Your task to perform on an android device: change the clock style Image 0: 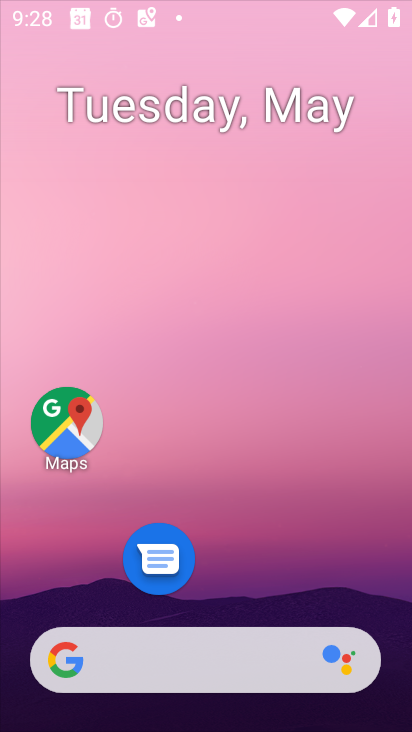
Step 0: drag from (281, 295) to (197, 0)
Your task to perform on an android device: change the clock style Image 1: 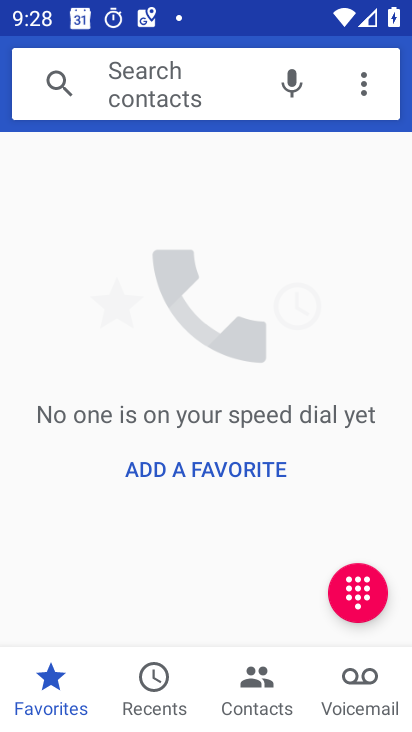
Step 1: press back button
Your task to perform on an android device: change the clock style Image 2: 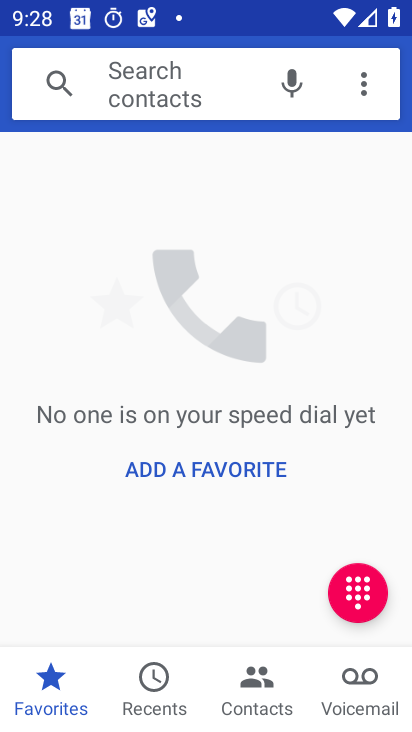
Step 2: press back button
Your task to perform on an android device: change the clock style Image 3: 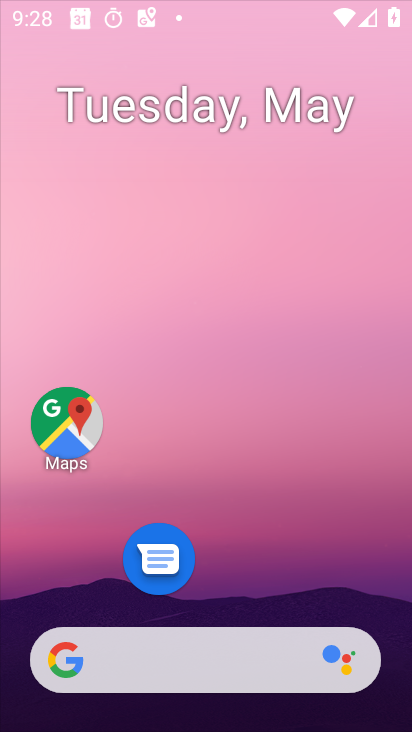
Step 3: press back button
Your task to perform on an android device: change the clock style Image 4: 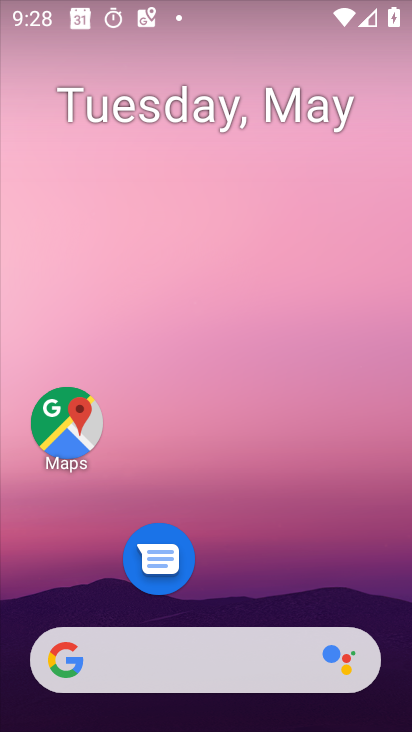
Step 4: drag from (304, 534) to (118, 111)
Your task to perform on an android device: change the clock style Image 5: 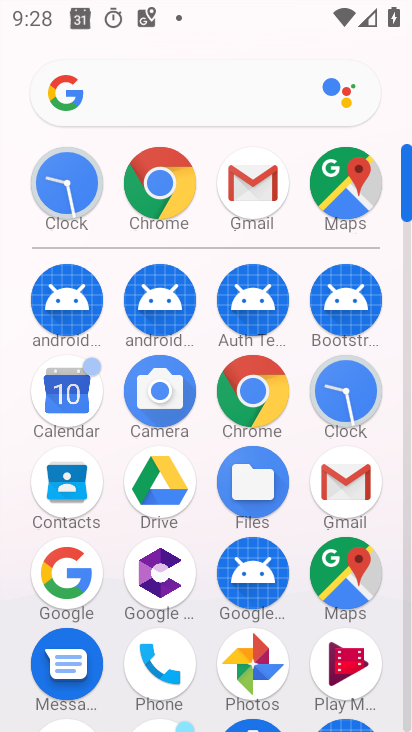
Step 5: click (350, 379)
Your task to perform on an android device: change the clock style Image 6: 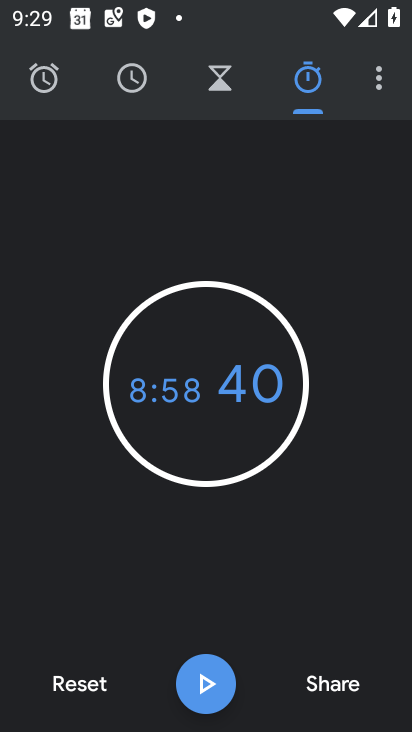
Step 6: click (376, 83)
Your task to perform on an android device: change the clock style Image 7: 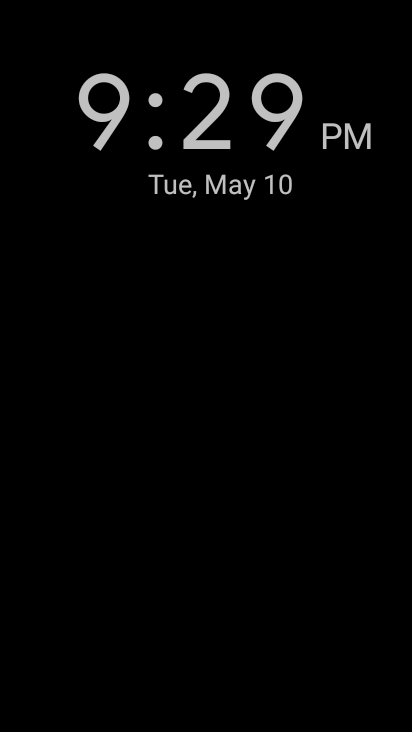
Step 7: press back button
Your task to perform on an android device: change the clock style Image 8: 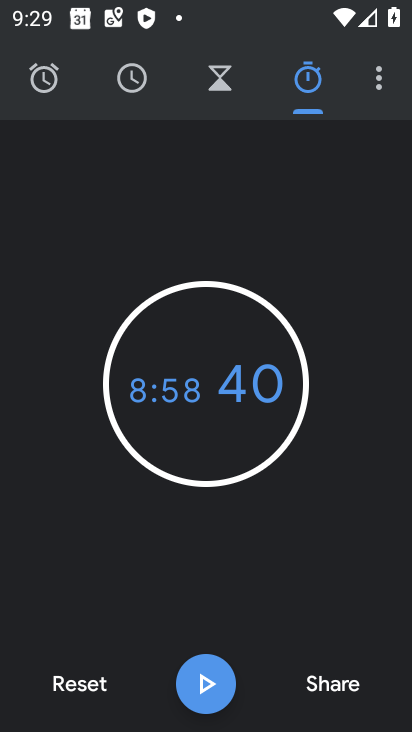
Step 8: click (382, 79)
Your task to perform on an android device: change the clock style Image 9: 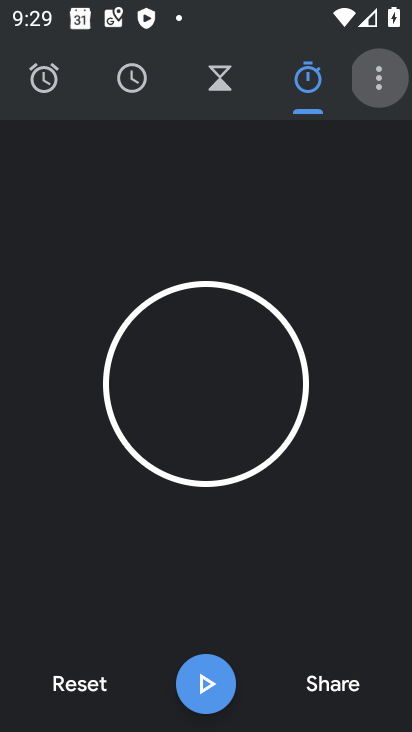
Step 9: click (376, 81)
Your task to perform on an android device: change the clock style Image 10: 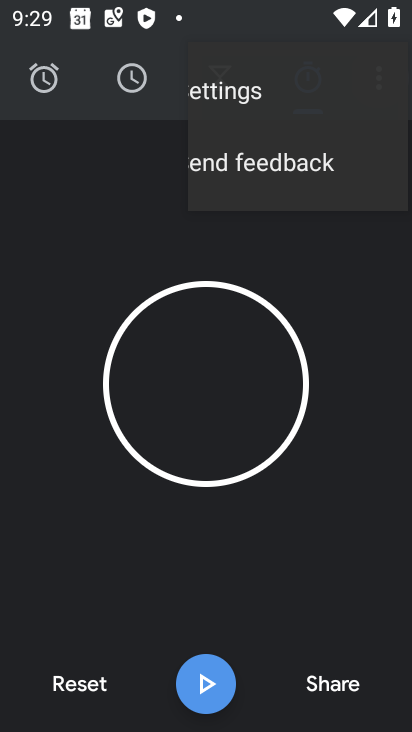
Step 10: click (376, 81)
Your task to perform on an android device: change the clock style Image 11: 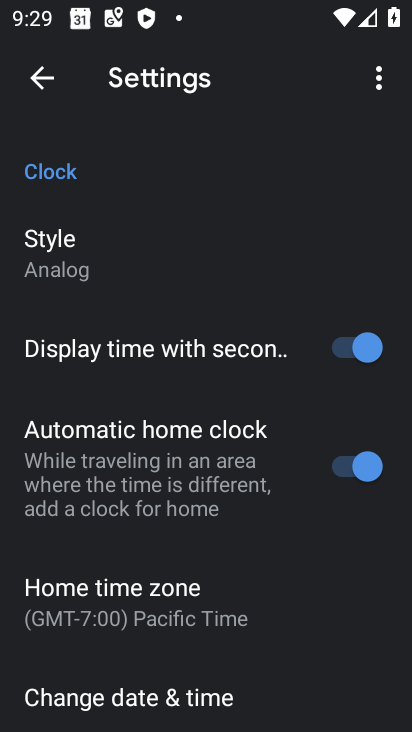
Step 11: click (109, 265)
Your task to perform on an android device: change the clock style Image 12: 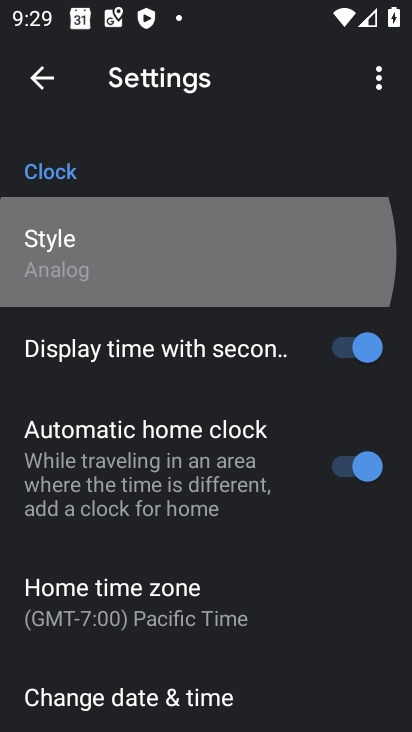
Step 12: click (108, 263)
Your task to perform on an android device: change the clock style Image 13: 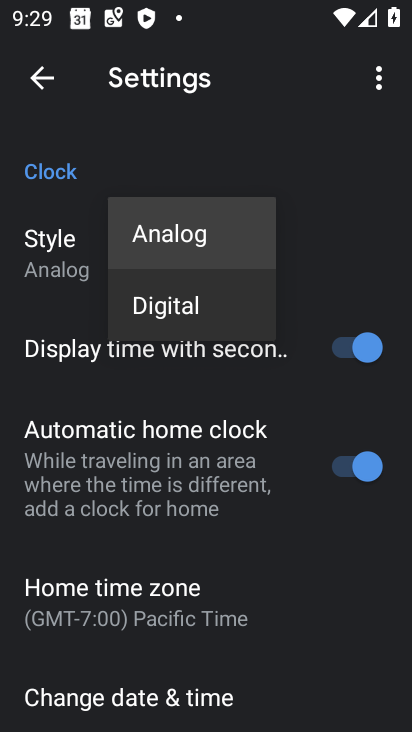
Step 13: click (183, 305)
Your task to perform on an android device: change the clock style Image 14: 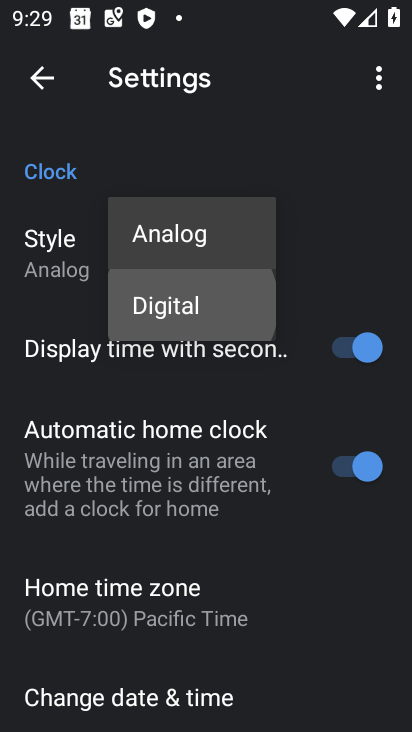
Step 14: click (178, 295)
Your task to perform on an android device: change the clock style Image 15: 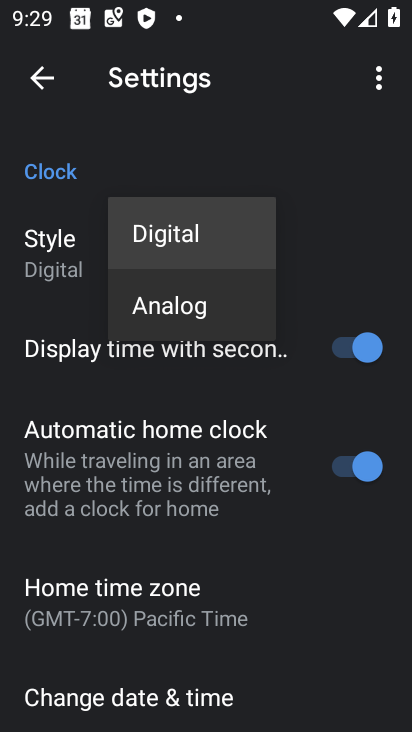
Step 15: click (186, 303)
Your task to perform on an android device: change the clock style Image 16: 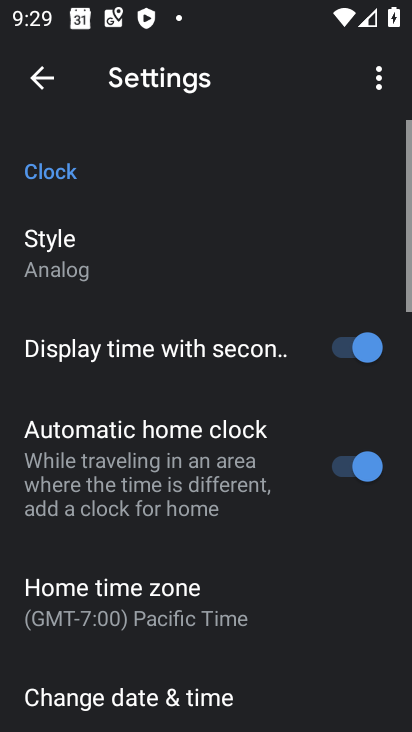
Step 16: task complete